Your task to perform on an android device: Go to Amazon Image 0: 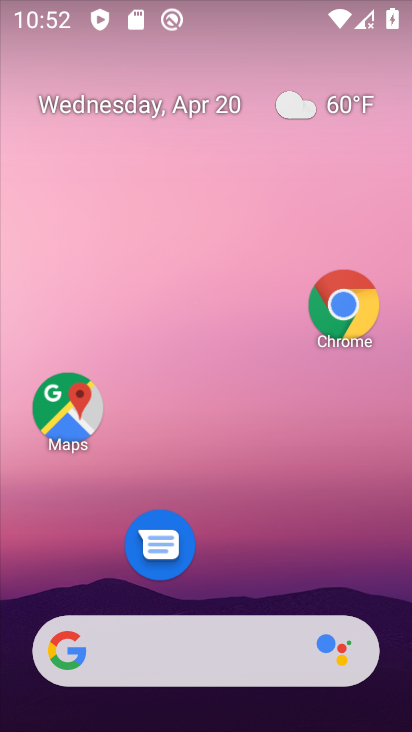
Step 0: click (337, 331)
Your task to perform on an android device: Go to Amazon Image 1: 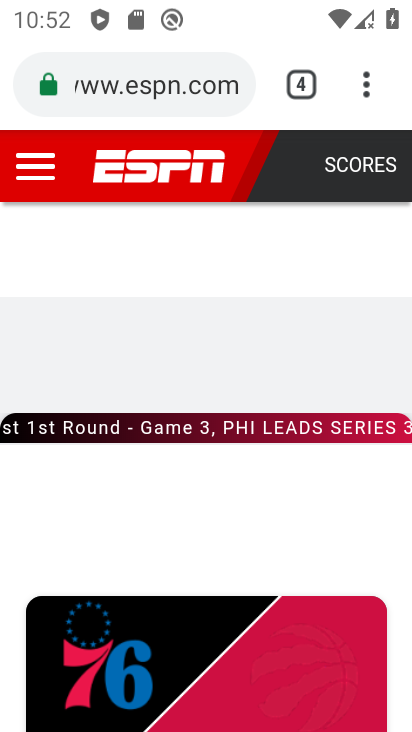
Step 1: click (179, 106)
Your task to perform on an android device: Go to Amazon Image 2: 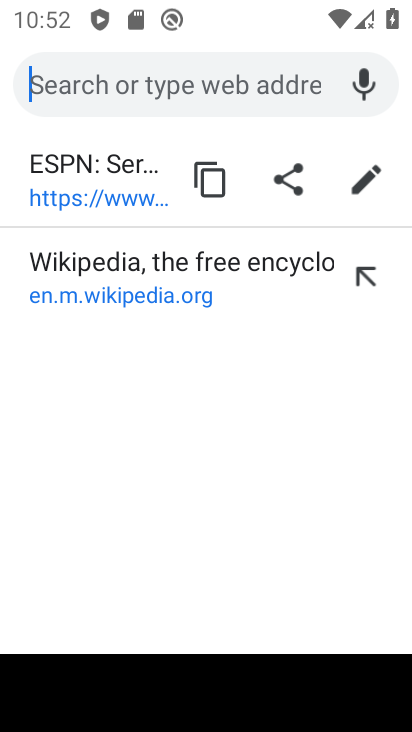
Step 2: type "amazon"
Your task to perform on an android device: Go to Amazon Image 3: 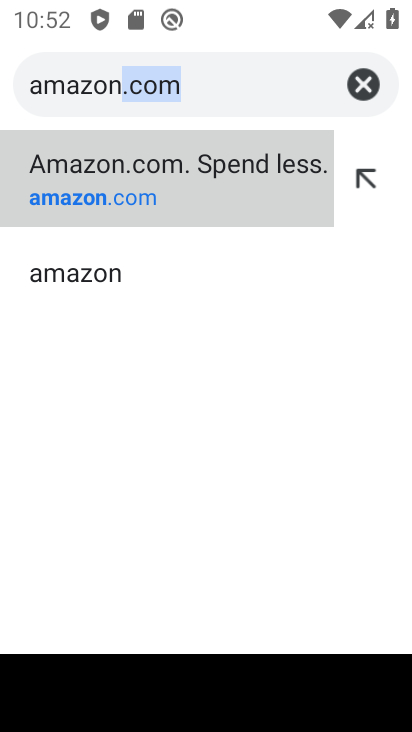
Step 3: click (152, 166)
Your task to perform on an android device: Go to Amazon Image 4: 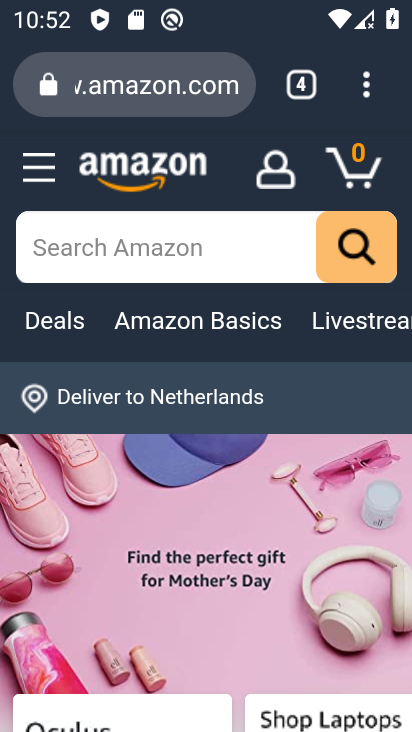
Step 4: task complete